Your task to perform on an android device: Open network settings Image 0: 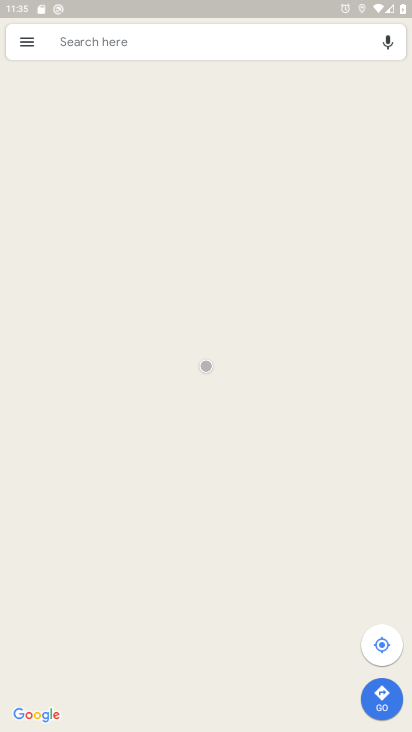
Step 0: press home button
Your task to perform on an android device: Open network settings Image 1: 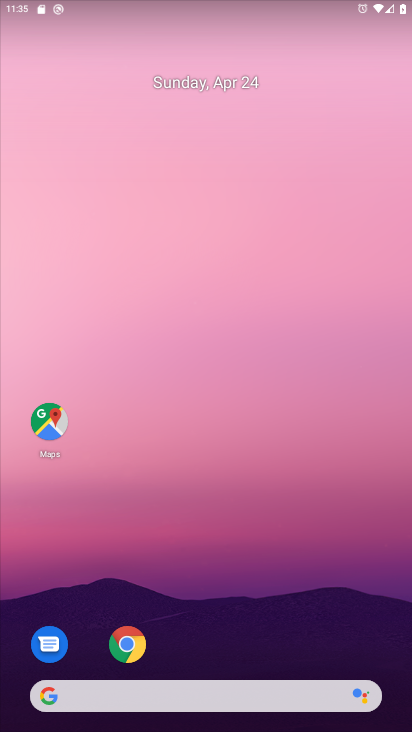
Step 1: drag from (211, 622) to (248, 2)
Your task to perform on an android device: Open network settings Image 2: 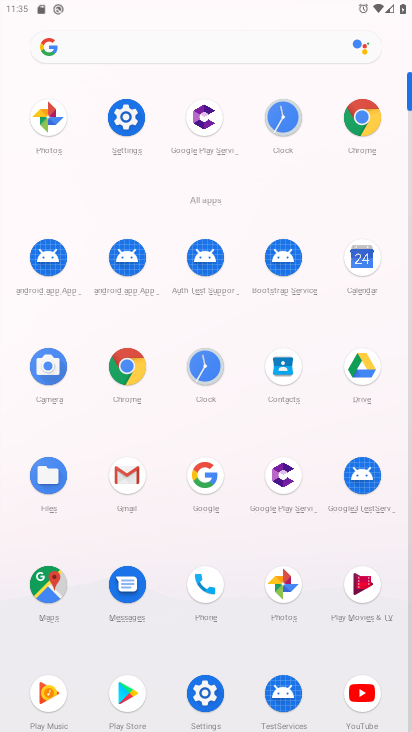
Step 2: click (129, 126)
Your task to perform on an android device: Open network settings Image 3: 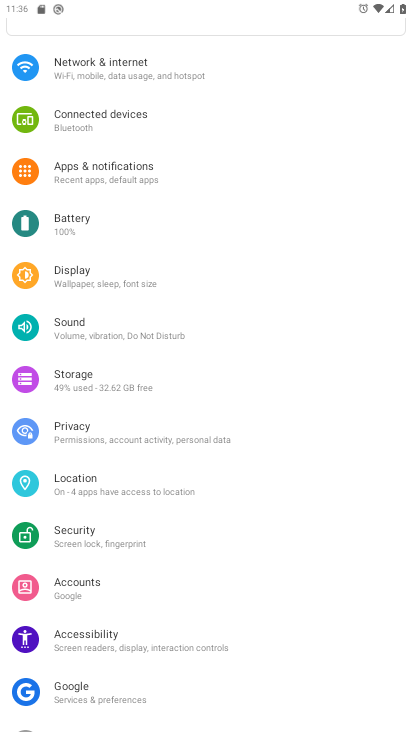
Step 3: click (128, 78)
Your task to perform on an android device: Open network settings Image 4: 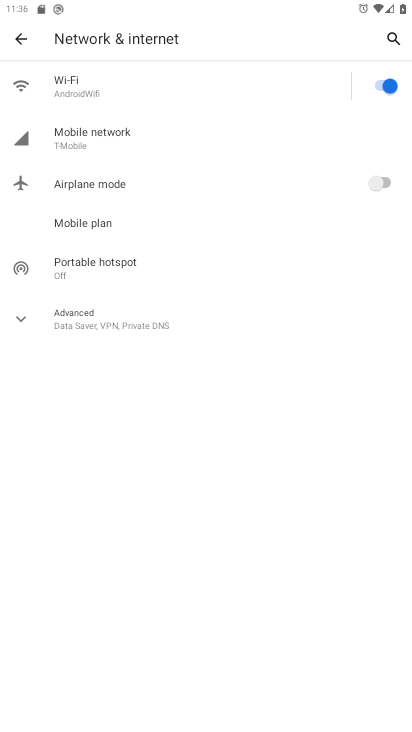
Step 4: task complete